Your task to perform on an android device: Open the web browser Image 0: 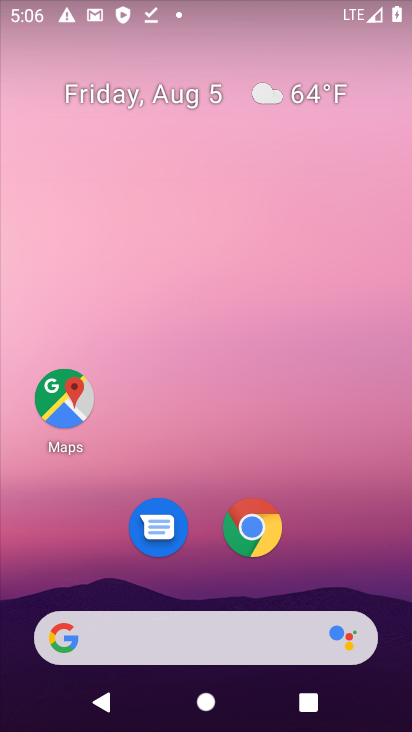
Step 0: drag from (204, 550) to (213, 147)
Your task to perform on an android device: Open the web browser Image 1: 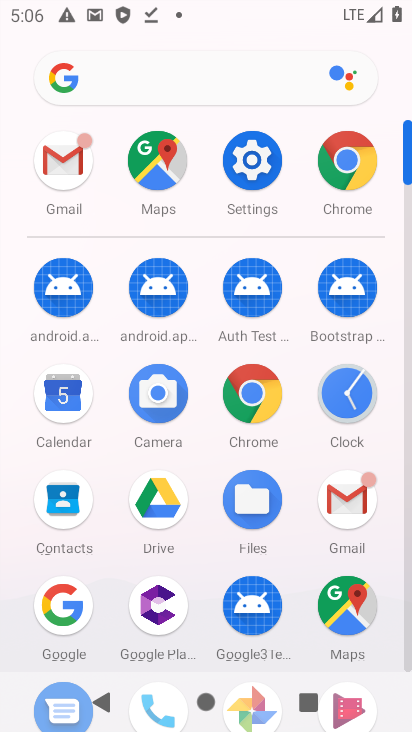
Step 1: click (345, 158)
Your task to perform on an android device: Open the web browser Image 2: 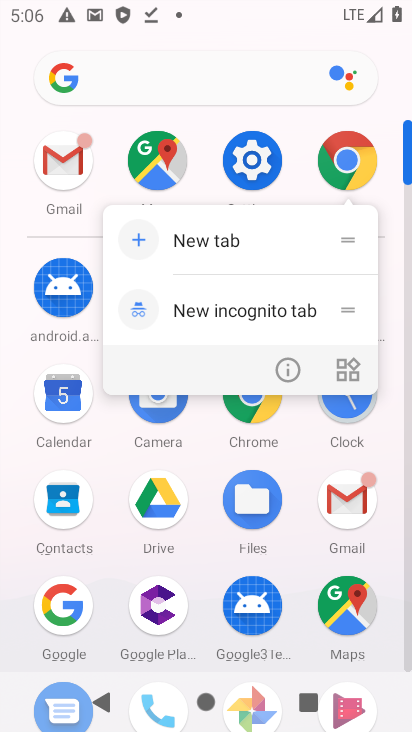
Step 2: click (272, 373)
Your task to perform on an android device: Open the web browser Image 3: 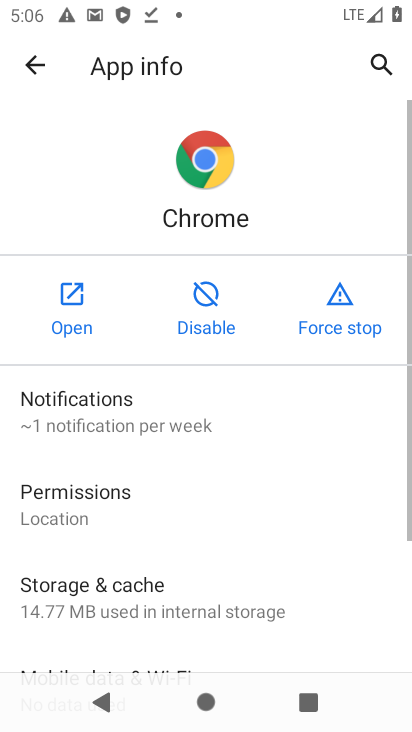
Step 3: click (85, 291)
Your task to perform on an android device: Open the web browser Image 4: 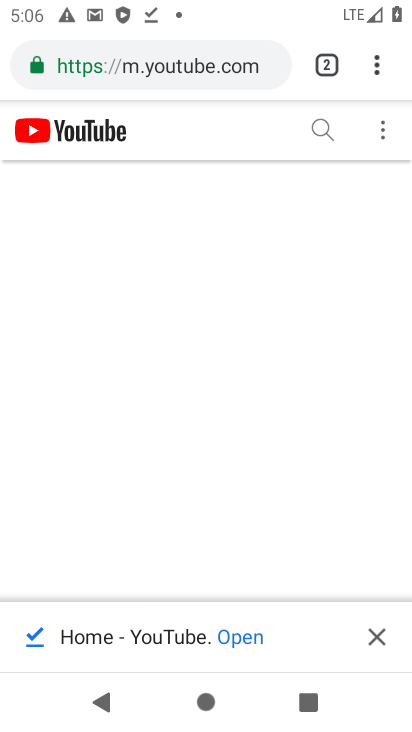
Step 4: task complete